Your task to perform on an android device: Open wifi settings Image 0: 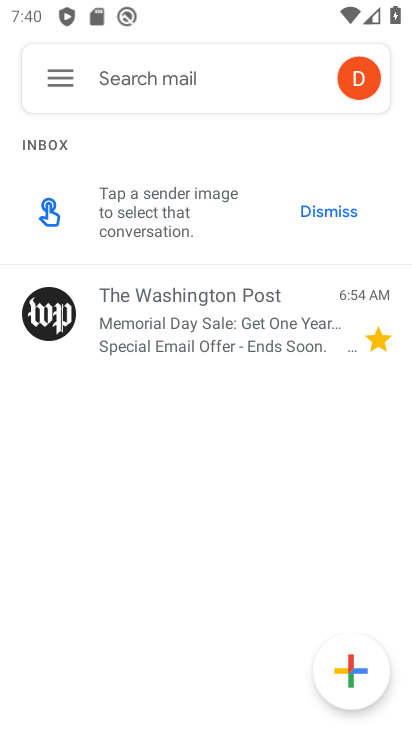
Step 0: press home button
Your task to perform on an android device: Open wifi settings Image 1: 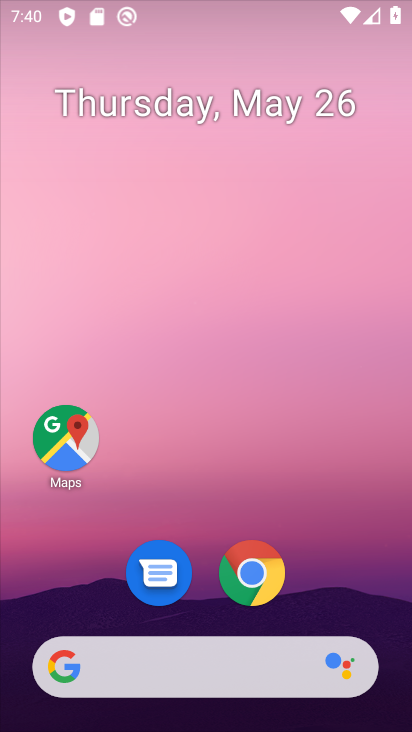
Step 1: drag from (346, 467) to (345, 130)
Your task to perform on an android device: Open wifi settings Image 2: 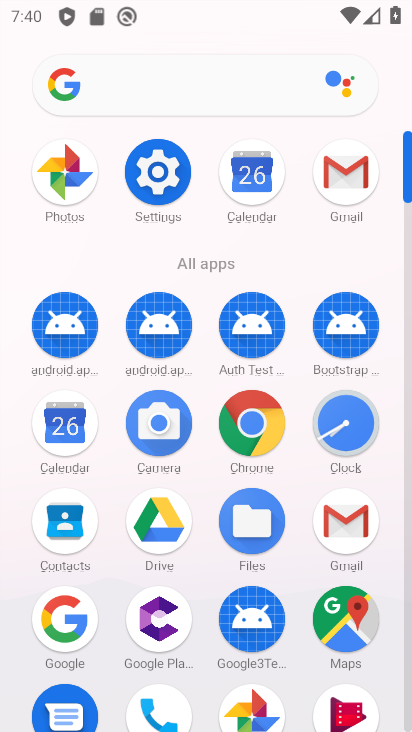
Step 2: click (159, 181)
Your task to perform on an android device: Open wifi settings Image 3: 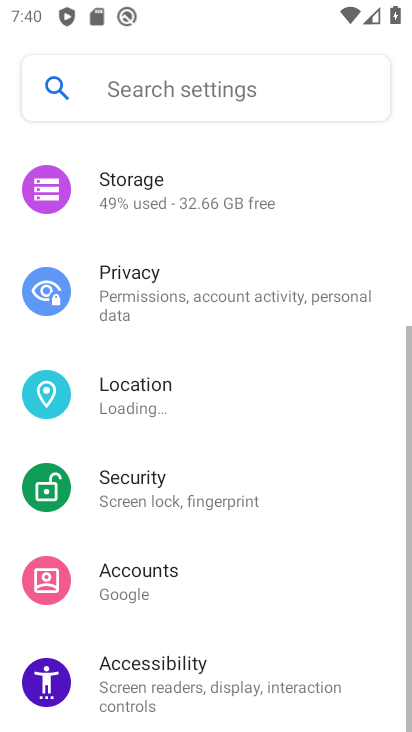
Step 3: click (176, 179)
Your task to perform on an android device: Open wifi settings Image 4: 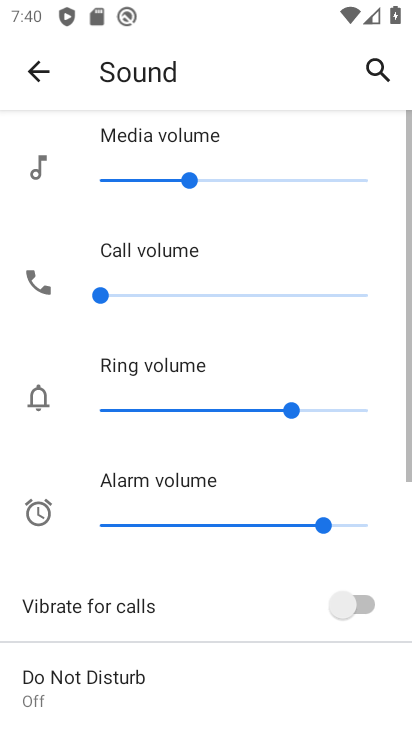
Step 4: click (50, 68)
Your task to perform on an android device: Open wifi settings Image 5: 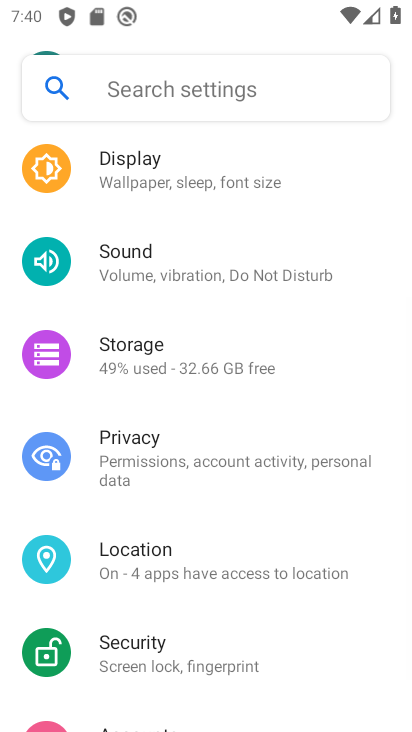
Step 5: drag from (270, 201) to (395, 673)
Your task to perform on an android device: Open wifi settings Image 6: 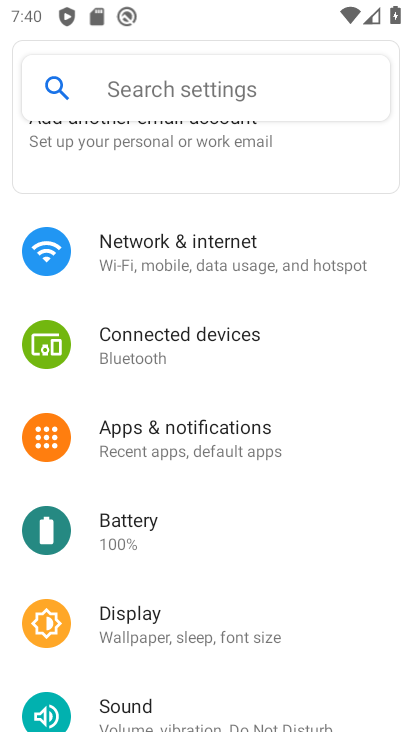
Step 6: click (215, 280)
Your task to perform on an android device: Open wifi settings Image 7: 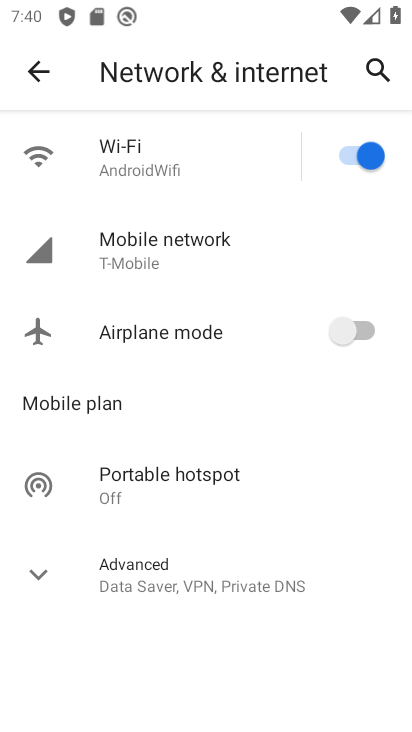
Step 7: click (232, 172)
Your task to perform on an android device: Open wifi settings Image 8: 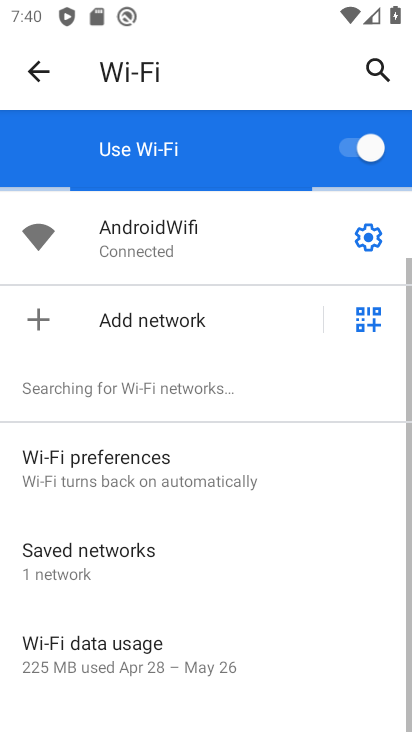
Step 8: click (363, 245)
Your task to perform on an android device: Open wifi settings Image 9: 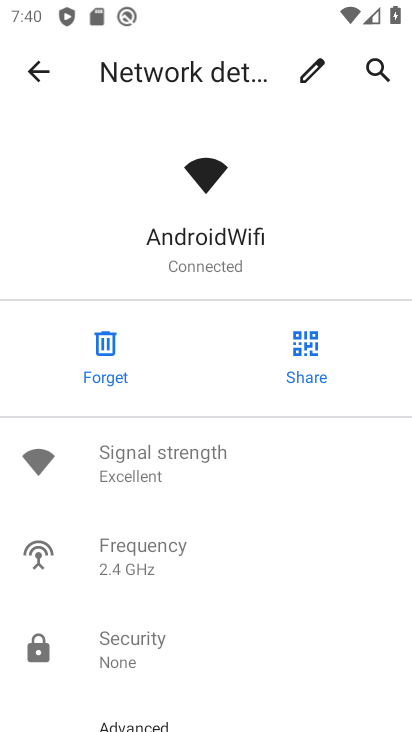
Step 9: task complete